Your task to perform on an android device: turn on improve location accuracy Image 0: 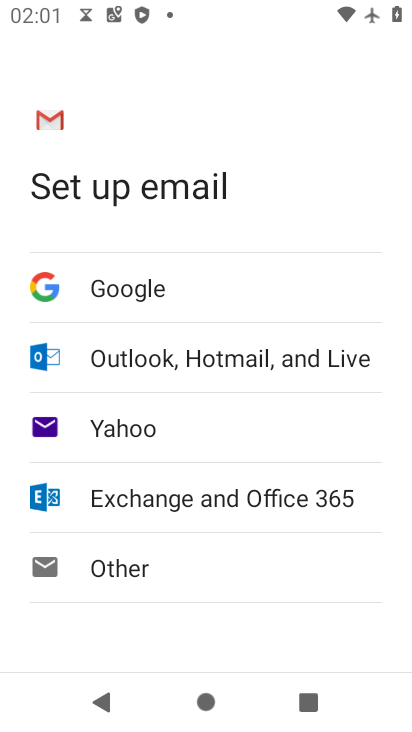
Step 0: press home button
Your task to perform on an android device: turn on improve location accuracy Image 1: 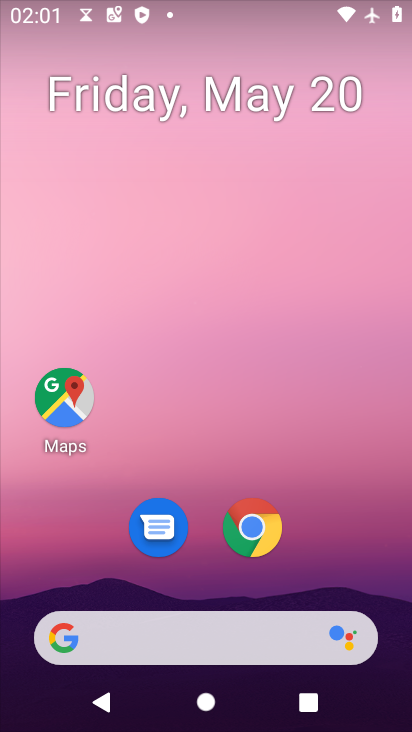
Step 1: drag from (167, 646) to (193, 329)
Your task to perform on an android device: turn on improve location accuracy Image 2: 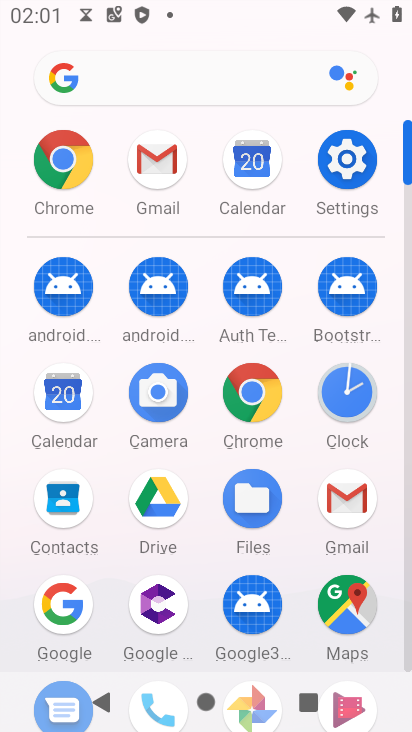
Step 2: click (334, 166)
Your task to perform on an android device: turn on improve location accuracy Image 3: 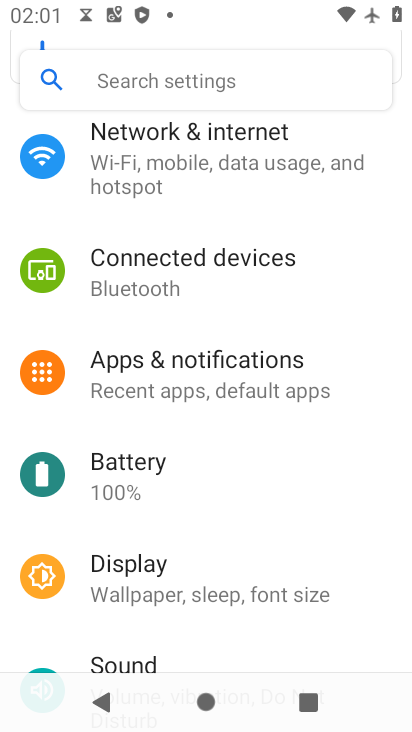
Step 3: drag from (243, 464) to (260, 269)
Your task to perform on an android device: turn on improve location accuracy Image 4: 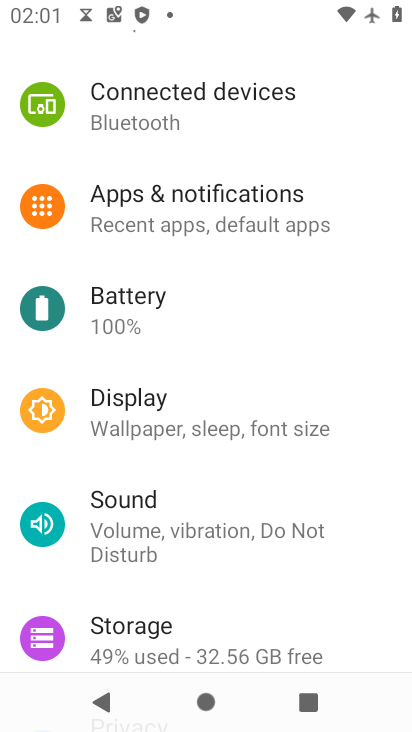
Step 4: drag from (236, 577) to (297, 195)
Your task to perform on an android device: turn on improve location accuracy Image 5: 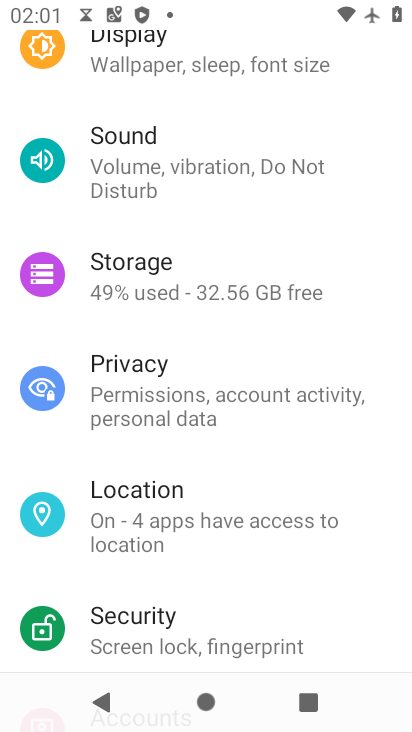
Step 5: click (146, 502)
Your task to perform on an android device: turn on improve location accuracy Image 6: 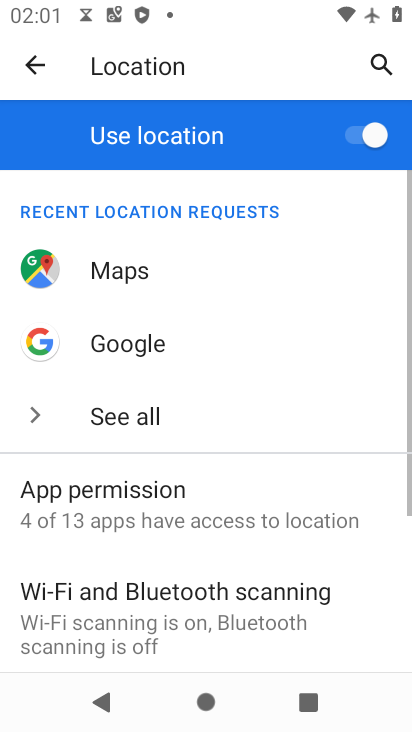
Step 6: drag from (167, 568) to (244, 281)
Your task to perform on an android device: turn on improve location accuracy Image 7: 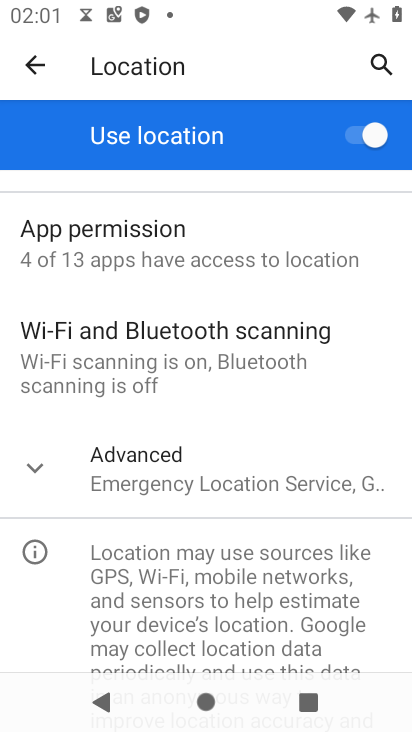
Step 7: click (172, 466)
Your task to perform on an android device: turn on improve location accuracy Image 8: 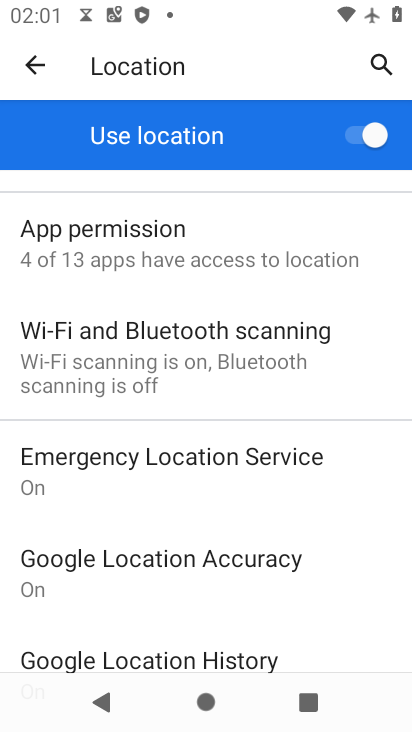
Step 8: click (167, 567)
Your task to perform on an android device: turn on improve location accuracy Image 9: 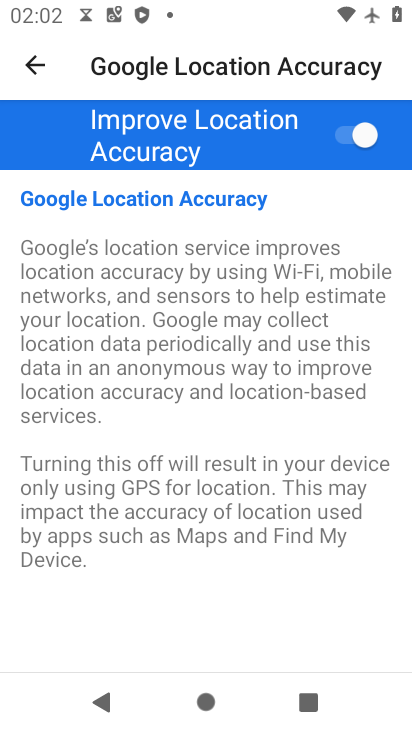
Step 9: task complete